Your task to perform on an android device: Open battery settings Image 0: 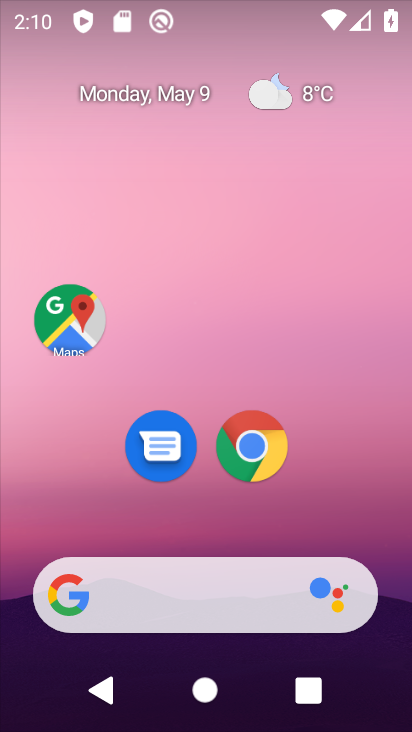
Step 0: drag from (343, 475) to (183, 105)
Your task to perform on an android device: Open battery settings Image 1: 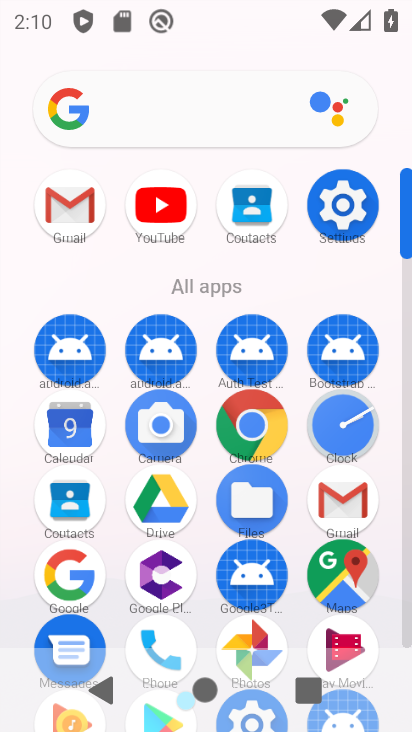
Step 1: click (347, 198)
Your task to perform on an android device: Open battery settings Image 2: 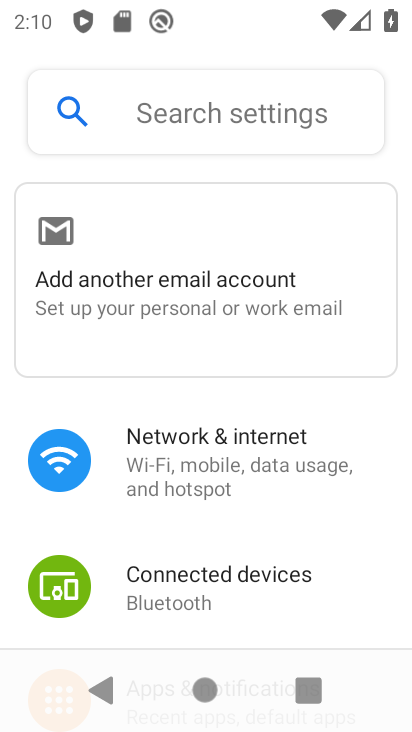
Step 2: drag from (178, 545) to (150, 133)
Your task to perform on an android device: Open battery settings Image 3: 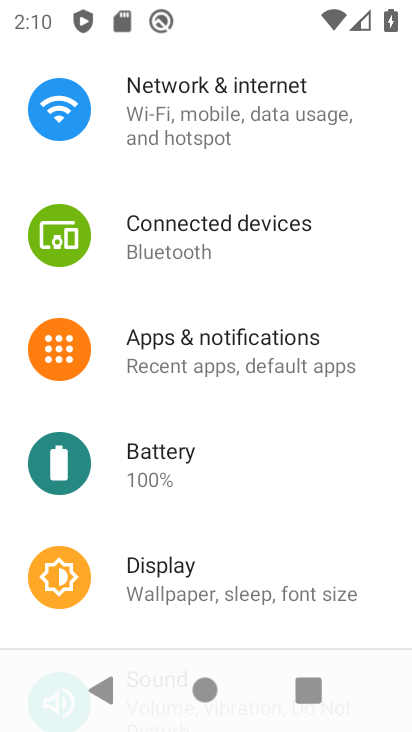
Step 3: click (129, 450)
Your task to perform on an android device: Open battery settings Image 4: 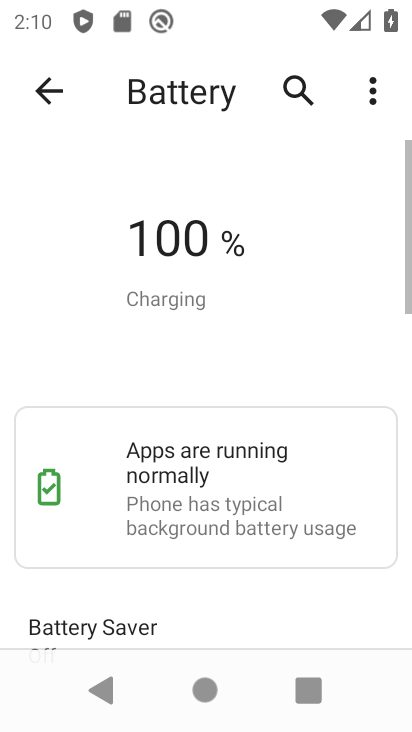
Step 4: task complete